Your task to perform on an android device: change the upload size in google photos Image 0: 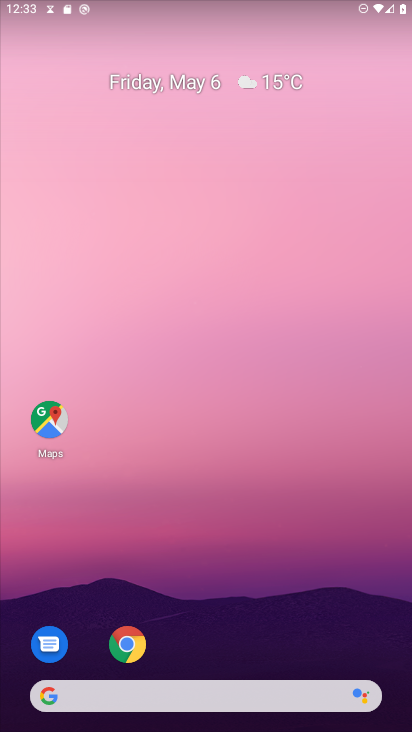
Step 0: drag from (261, 571) to (7, 4)
Your task to perform on an android device: change the upload size in google photos Image 1: 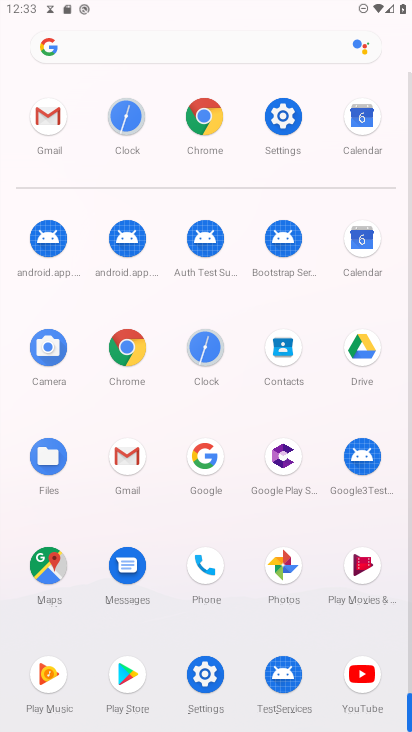
Step 1: drag from (7, 609) to (12, 427)
Your task to perform on an android device: change the upload size in google photos Image 2: 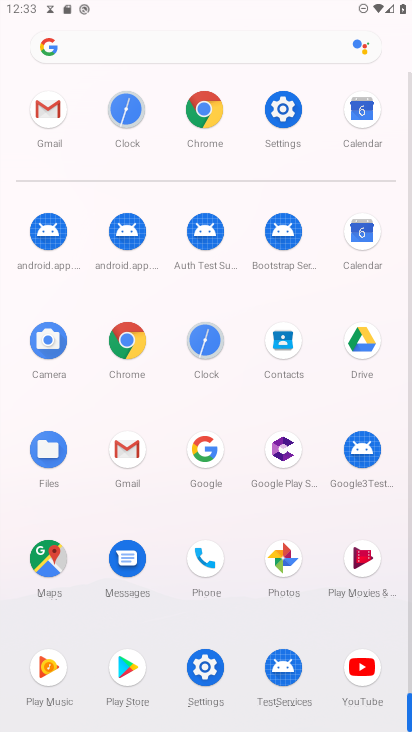
Step 2: click (279, 556)
Your task to perform on an android device: change the upload size in google photos Image 3: 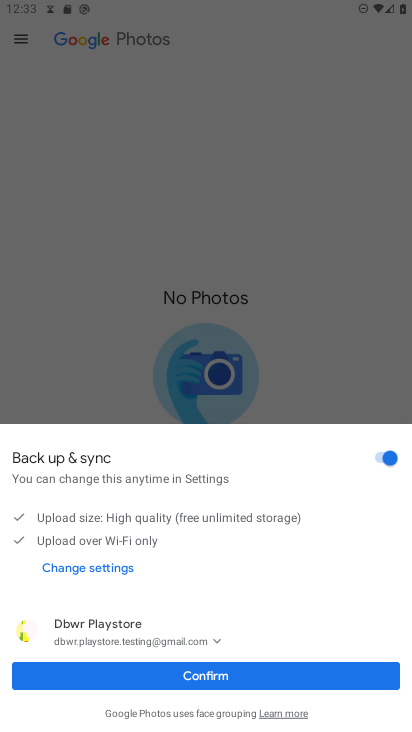
Step 3: click (101, 668)
Your task to perform on an android device: change the upload size in google photos Image 4: 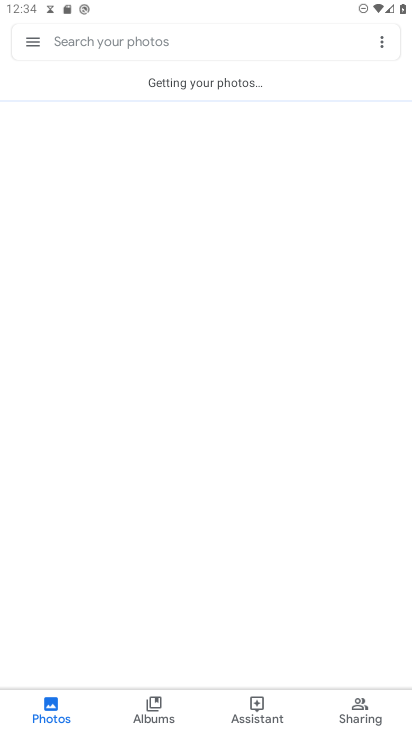
Step 4: click (28, 49)
Your task to perform on an android device: change the upload size in google photos Image 5: 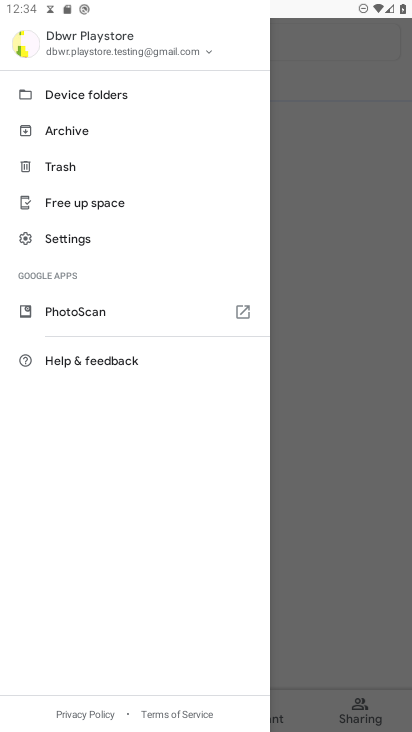
Step 5: click (70, 240)
Your task to perform on an android device: change the upload size in google photos Image 6: 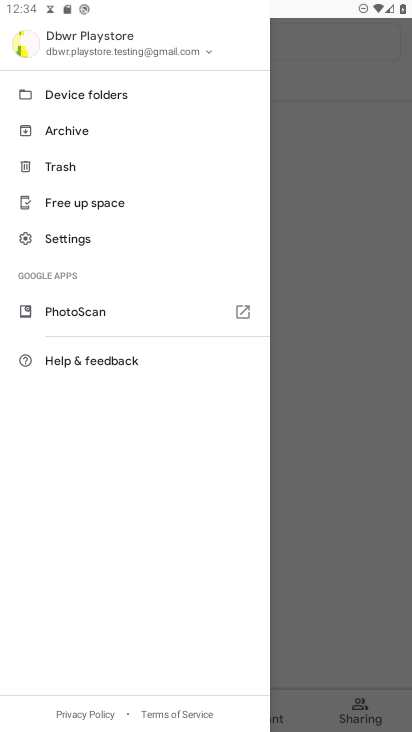
Step 6: click (58, 239)
Your task to perform on an android device: change the upload size in google photos Image 7: 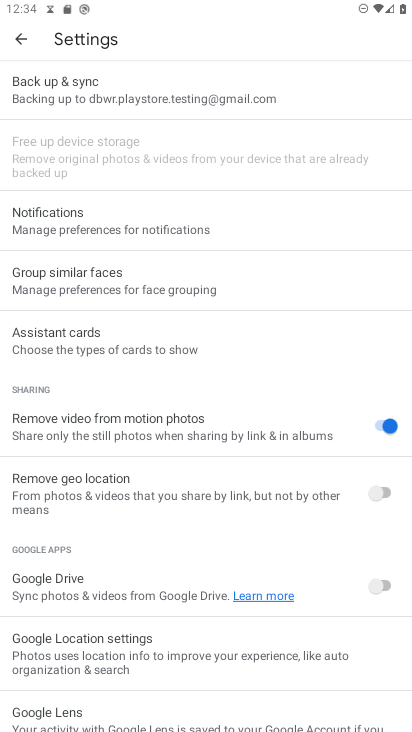
Step 7: drag from (158, 545) to (221, 89)
Your task to perform on an android device: change the upload size in google photos Image 8: 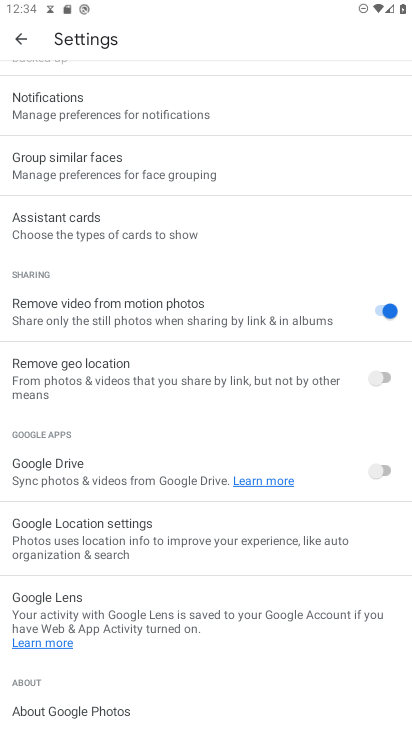
Step 8: drag from (203, 110) to (154, 495)
Your task to perform on an android device: change the upload size in google photos Image 9: 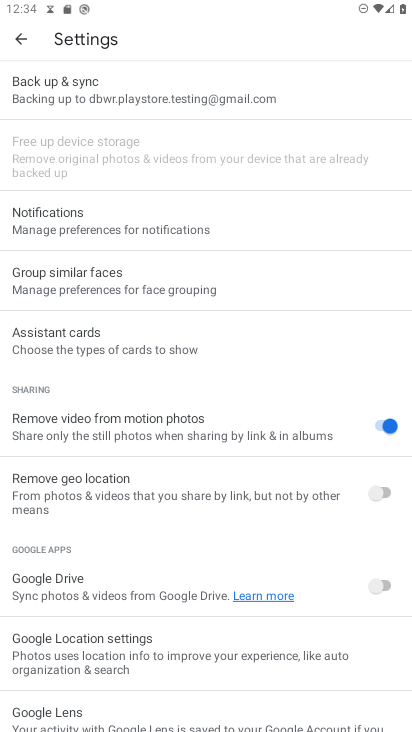
Step 9: click (154, 94)
Your task to perform on an android device: change the upload size in google photos Image 10: 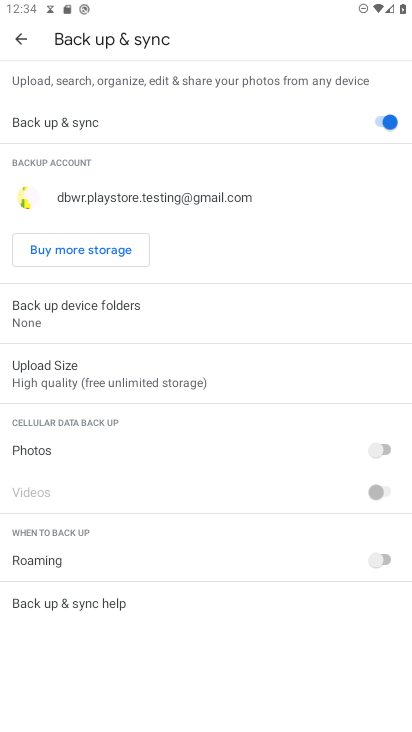
Step 10: click (148, 366)
Your task to perform on an android device: change the upload size in google photos Image 11: 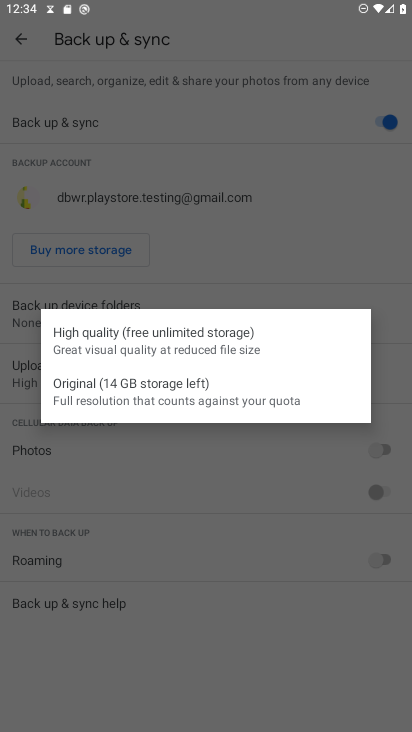
Step 11: click (152, 344)
Your task to perform on an android device: change the upload size in google photos Image 12: 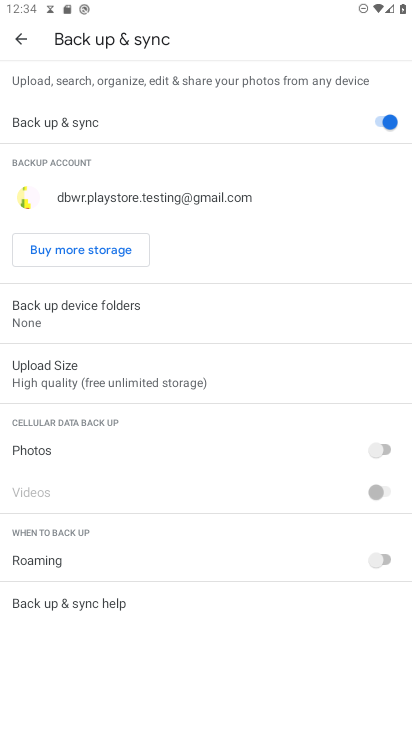
Step 12: click (139, 376)
Your task to perform on an android device: change the upload size in google photos Image 13: 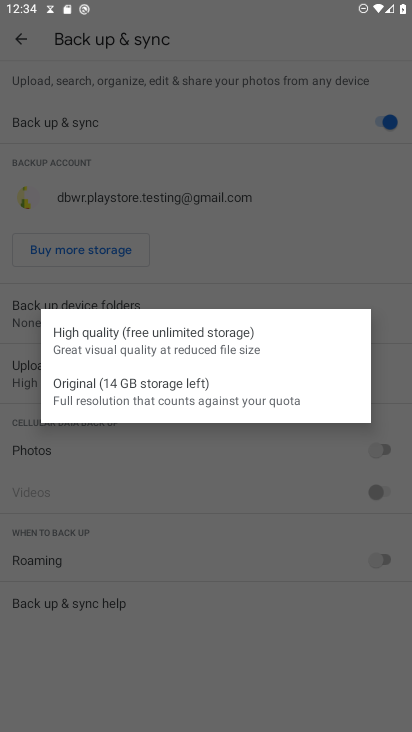
Step 13: click (134, 388)
Your task to perform on an android device: change the upload size in google photos Image 14: 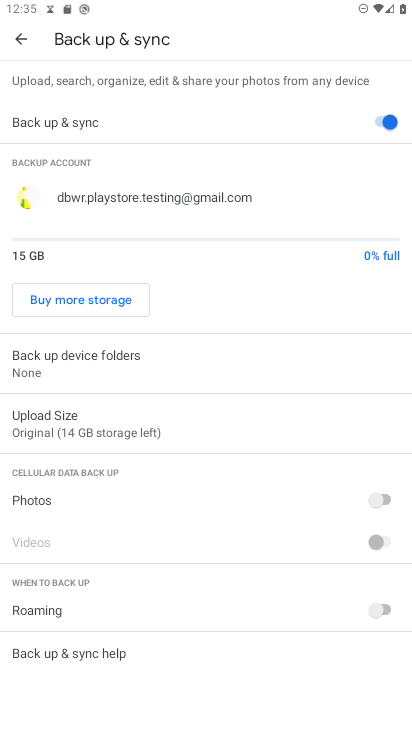
Step 14: task complete